Your task to perform on an android device: Open the calendar and show me this week's events Image 0: 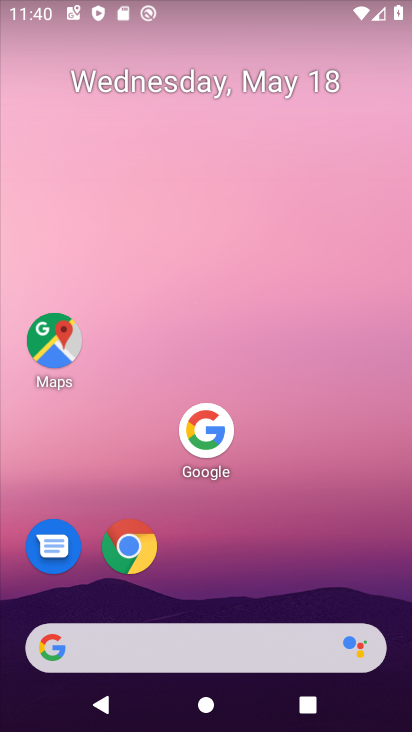
Step 0: drag from (233, 564) to (249, 118)
Your task to perform on an android device: Open the calendar and show me this week's events Image 1: 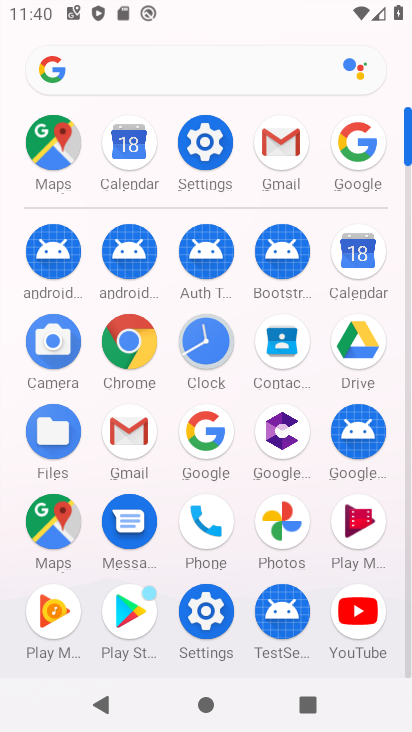
Step 1: click (357, 254)
Your task to perform on an android device: Open the calendar and show me this week's events Image 2: 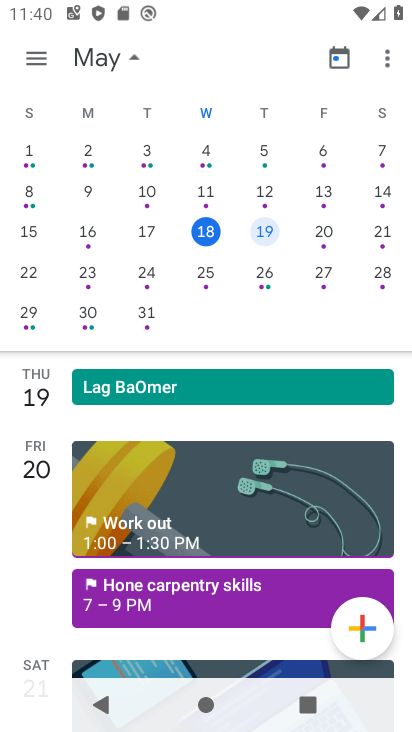
Step 2: click (323, 232)
Your task to perform on an android device: Open the calendar and show me this week's events Image 3: 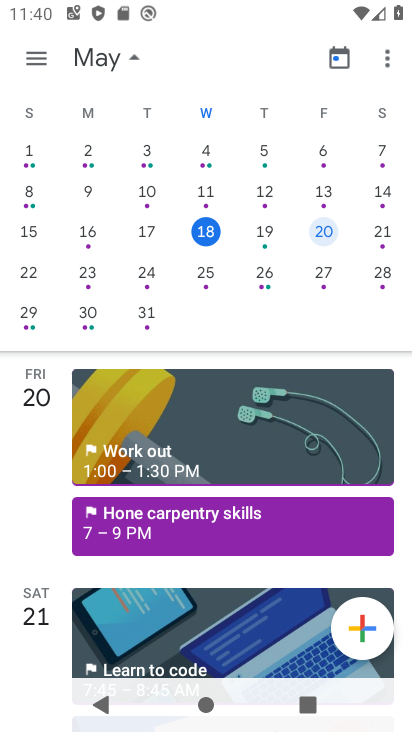
Step 3: task complete